Your task to perform on an android device: Do I have any events this weekend? Image 0: 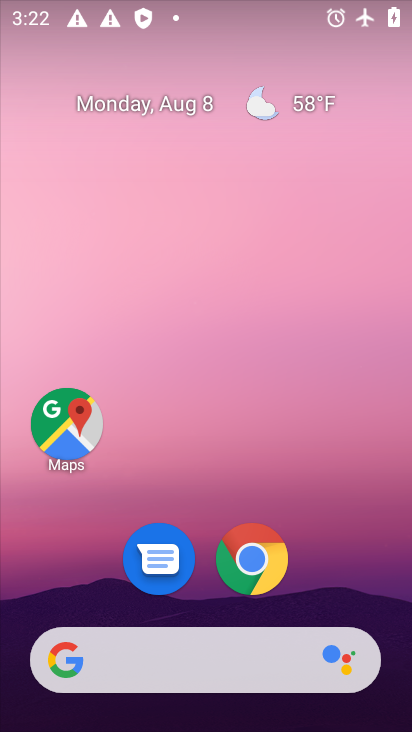
Step 0: drag from (233, 683) to (241, 268)
Your task to perform on an android device: Do I have any events this weekend? Image 1: 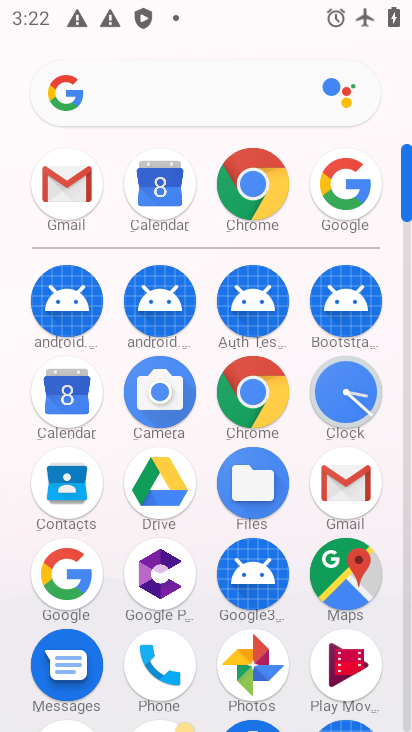
Step 1: click (66, 397)
Your task to perform on an android device: Do I have any events this weekend? Image 2: 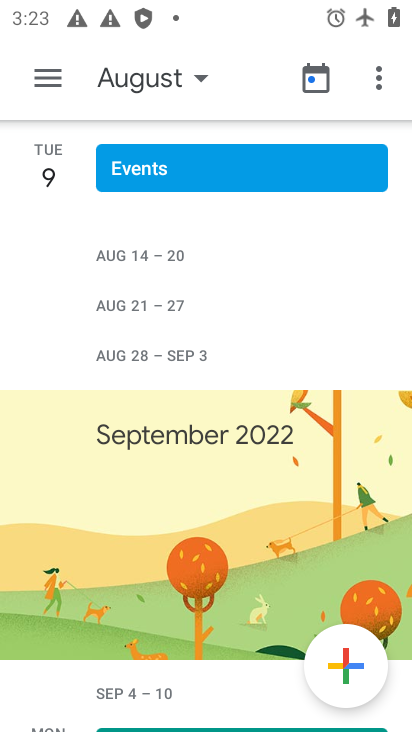
Step 2: click (321, 83)
Your task to perform on an android device: Do I have any events this weekend? Image 3: 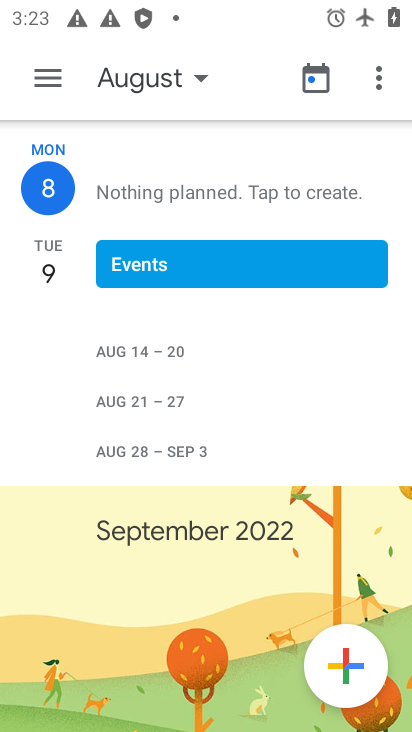
Step 3: click (200, 82)
Your task to perform on an android device: Do I have any events this weekend? Image 4: 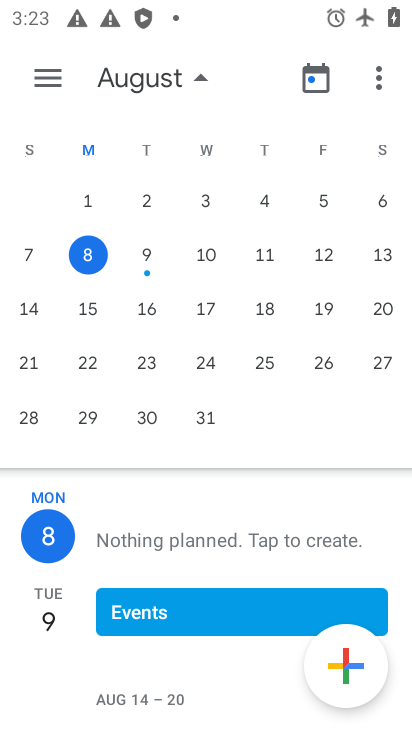
Step 4: click (390, 257)
Your task to perform on an android device: Do I have any events this weekend? Image 5: 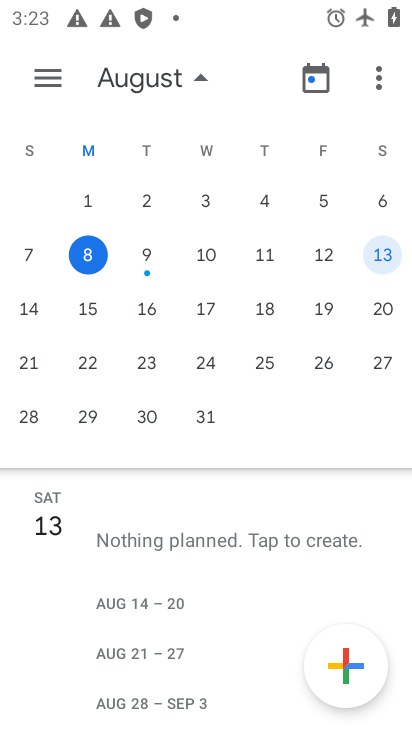
Step 5: click (39, 84)
Your task to perform on an android device: Do I have any events this weekend? Image 6: 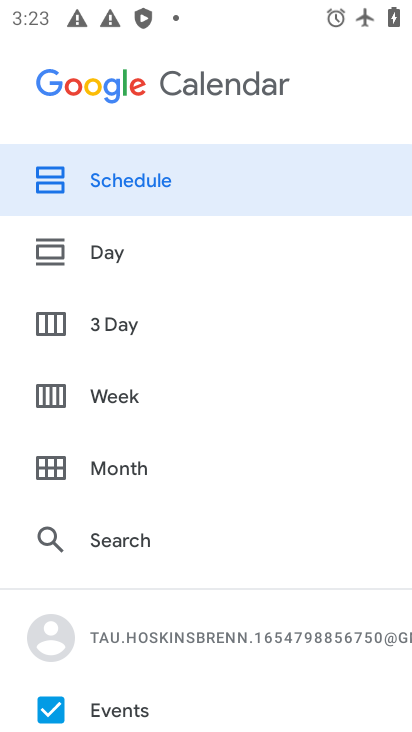
Step 6: click (96, 180)
Your task to perform on an android device: Do I have any events this weekend? Image 7: 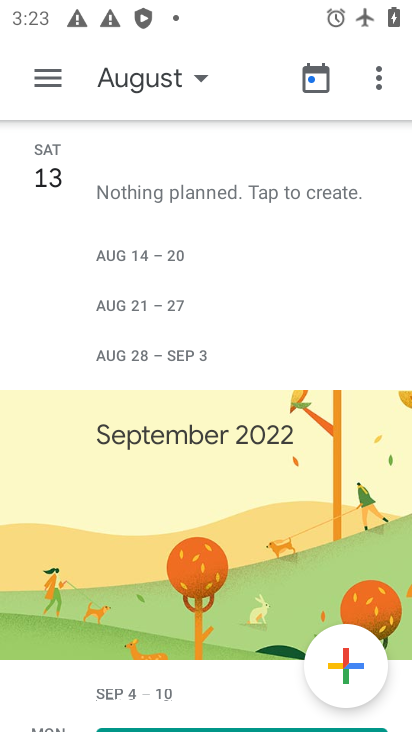
Step 7: task complete